Your task to perform on an android device: Open calendar and show me the first week of next month Image 0: 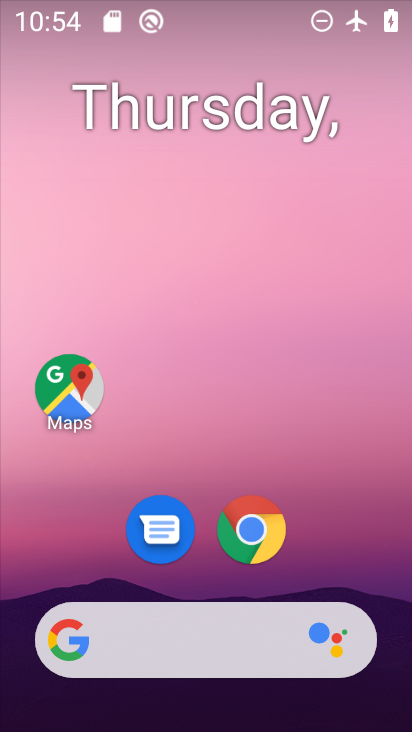
Step 0: drag from (37, 581) to (121, 15)
Your task to perform on an android device: Open calendar and show me the first week of next month Image 1: 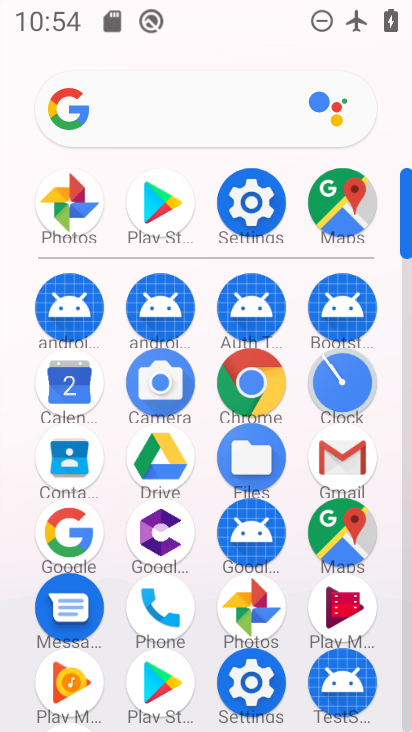
Step 1: click (61, 389)
Your task to perform on an android device: Open calendar and show me the first week of next month Image 2: 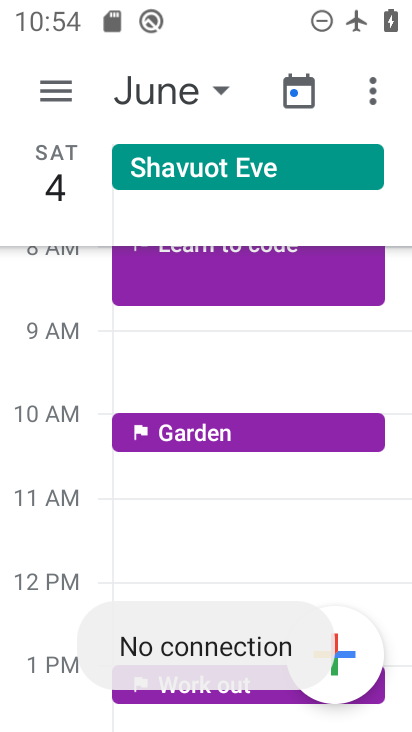
Step 2: click (153, 98)
Your task to perform on an android device: Open calendar and show me the first week of next month Image 3: 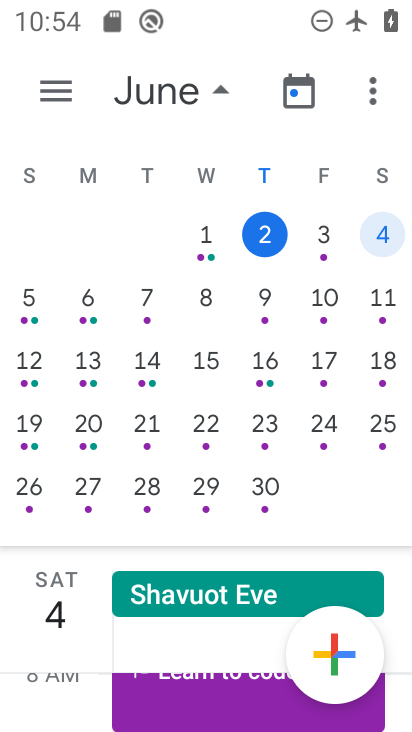
Step 3: task complete